Your task to perform on an android device: turn off priority inbox in the gmail app Image 0: 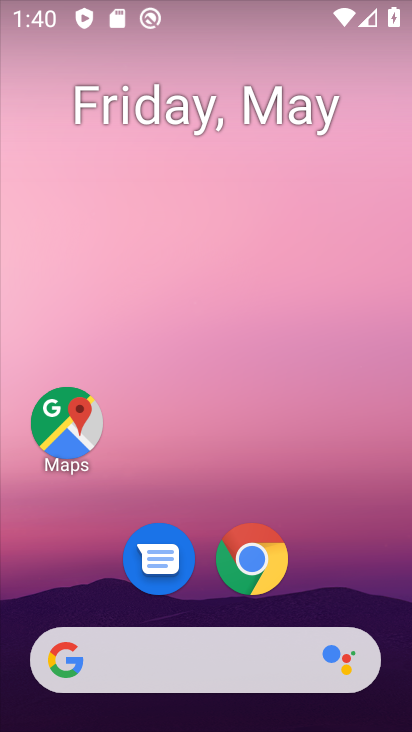
Step 0: drag from (347, 554) to (317, 237)
Your task to perform on an android device: turn off priority inbox in the gmail app Image 1: 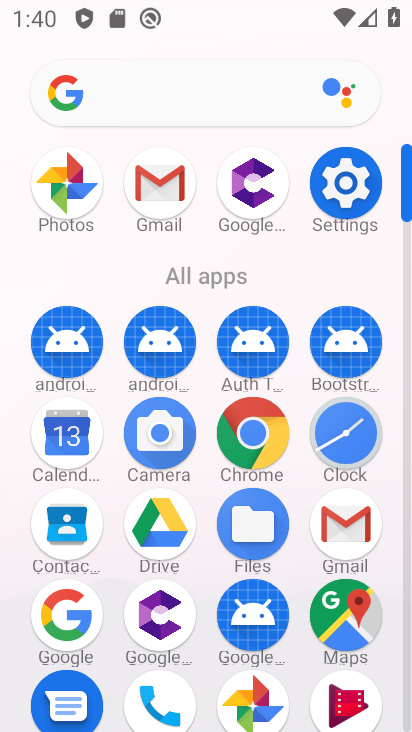
Step 1: click (159, 209)
Your task to perform on an android device: turn off priority inbox in the gmail app Image 2: 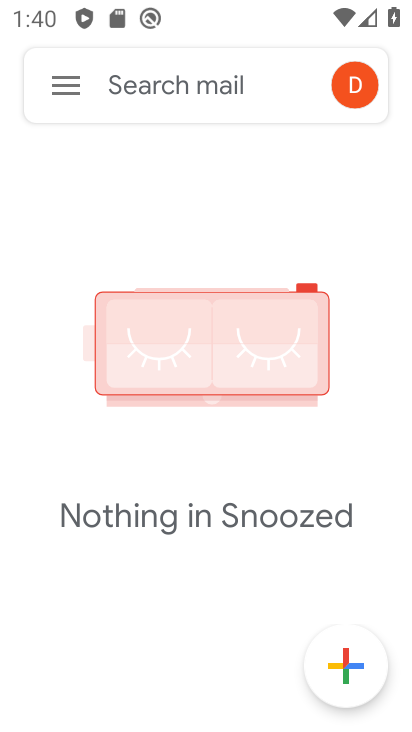
Step 2: click (78, 92)
Your task to perform on an android device: turn off priority inbox in the gmail app Image 3: 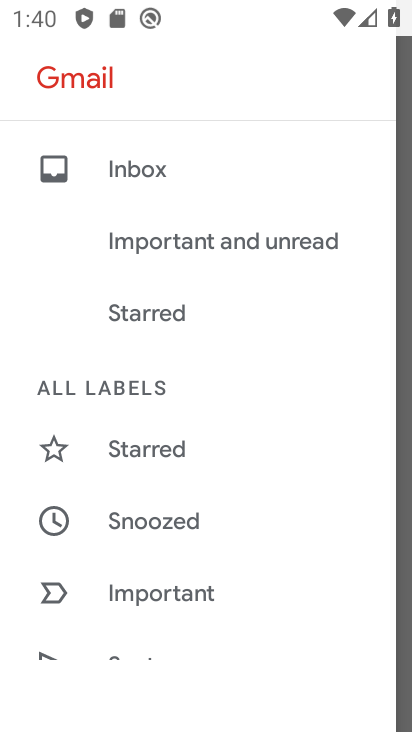
Step 3: drag from (150, 597) to (157, 249)
Your task to perform on an android device: turn off priority inbox in the gmail app Image 4: 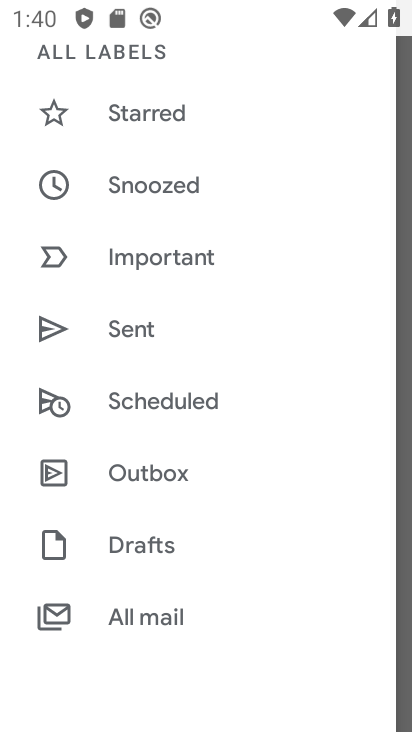
Step 4: drag from (183, 583) to (178, 167)
Your task to perform on an android device: turn off priority inbox in the gmail app Image 5: 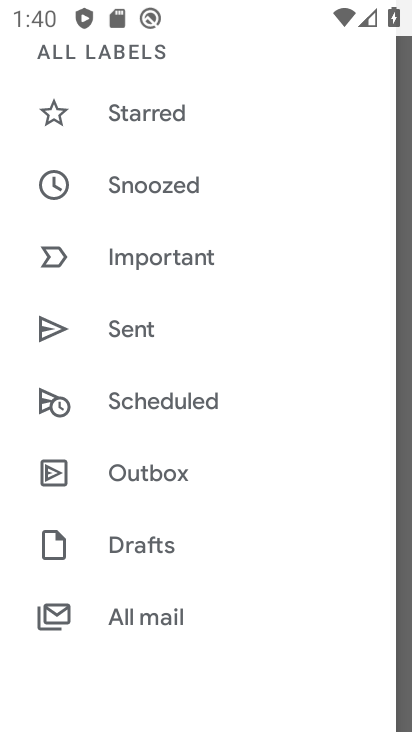
Step 5: drag from (194, 568) to (253, 245)
Your task to perform on an android device: turn off priority inbox in the gmail app Image 6: 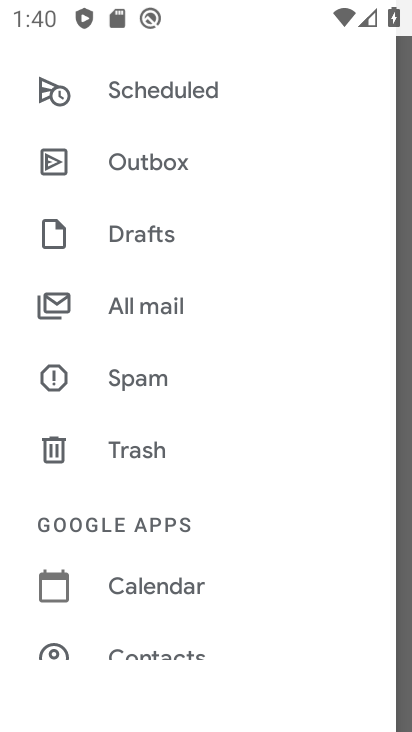
Step 6: drag from (241, 565) to (261, 201)
Your task to perform on an android device: turn off priority inbox in the gmail app Image 7: 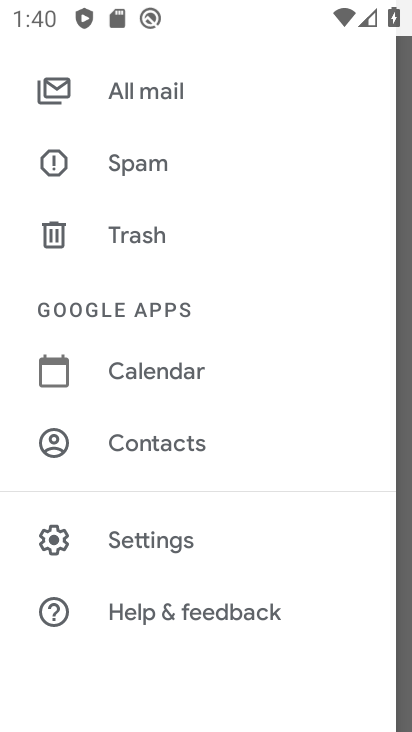
Step 7: click (184, 545)
Your task to perform on an android device: turn off priority inbox in the gmail app Image 8: 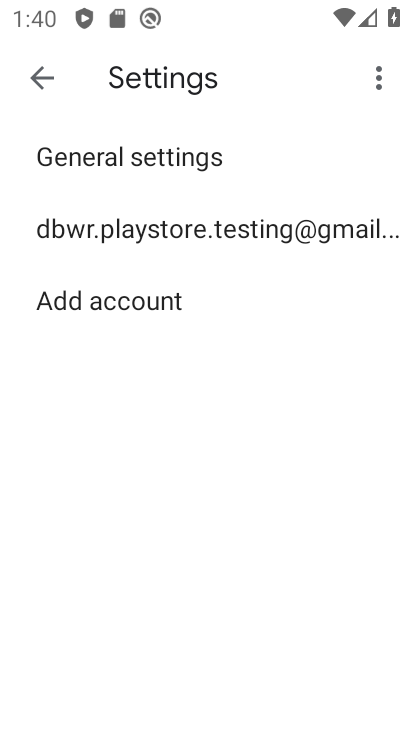
Step 8: click (145, 228)
Your task to perform on an android device: turn off priority inbox in the gmail app Image 9: 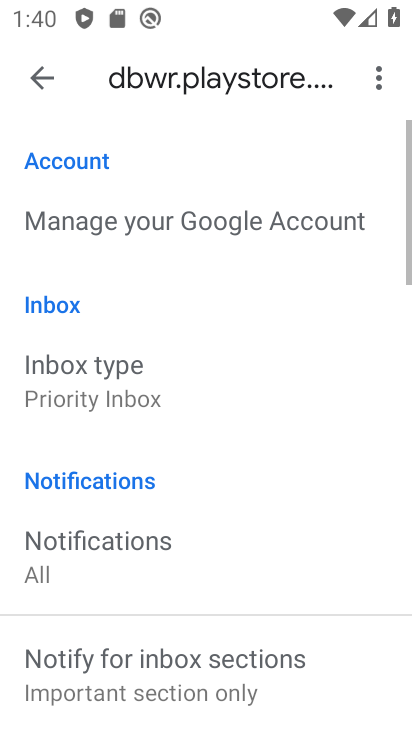
Step 9: drag from (159, 609) to (177, 224)
Your task to perform on an android device: turn off priority inbox in the gmail app Image 10: 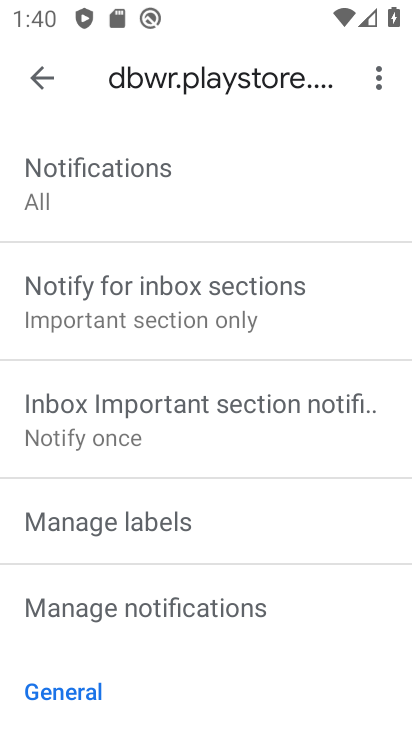
Step 10: drag from (165, 680) to (203, 205)
Your task to perform on an android device: turn off priority inbox in the gmail app Image 11: 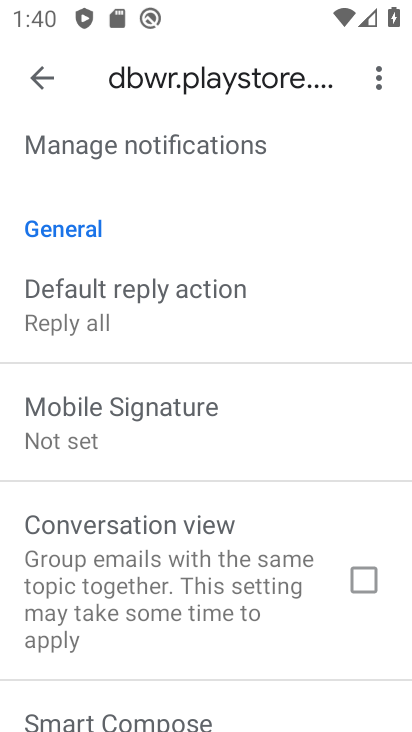
Step 11: drag from (184, 652) to (254, 222)
Your task to perform on an android device: turn off priority inbox in the gmail app Image 12: 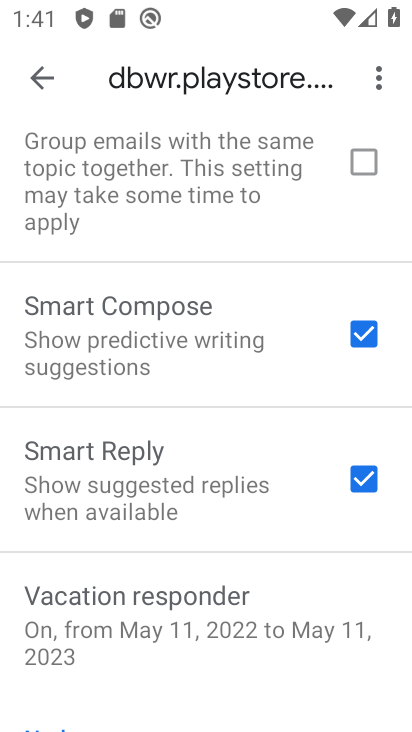
Step 12: drag from (230, 653) to (259, 308)
Your task to perform on an android device: turn off priority inbox in the gmail app Image 13: 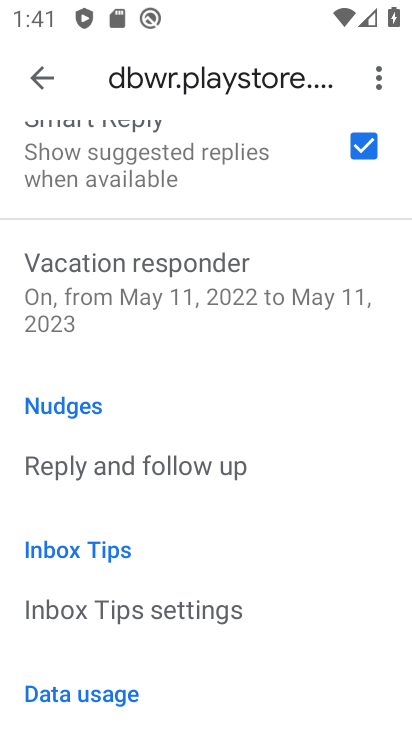
Step 13: drag from (261, 599) to (285, 333)
Your task to perform on an android device: turn off priority inbox in the gmail app Image 14: 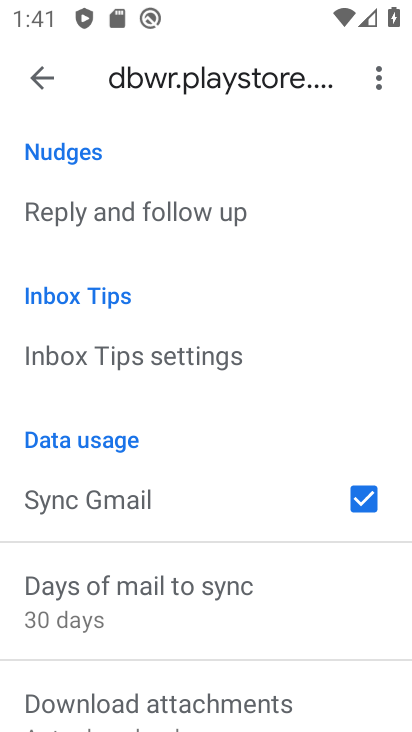
Step 14: drag from (205, 291) to (209, 632)
Your task to perform on an android device: turn off priority inbox in the gmail app Image 15: 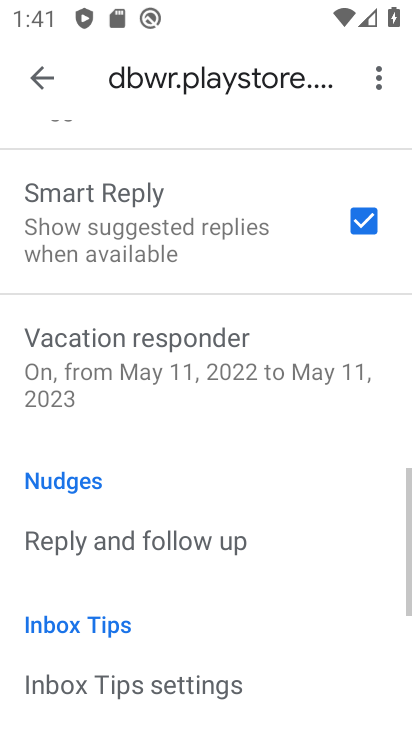
Step 15: drag from (188, 209) to (204, 611)
Your task to perform on an android device: turn off priority inbox in the gmail app Image 16: 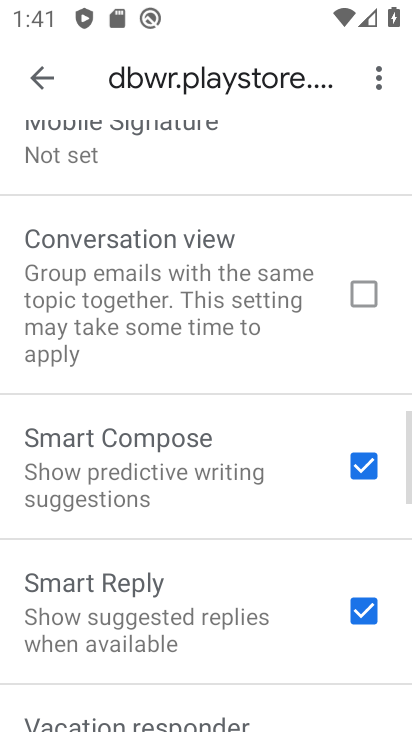
Step 16: drag from (188, 229) to (183, 600)
Your task to perform on an android device: turn off priority inbox in the gmail app Image 17: 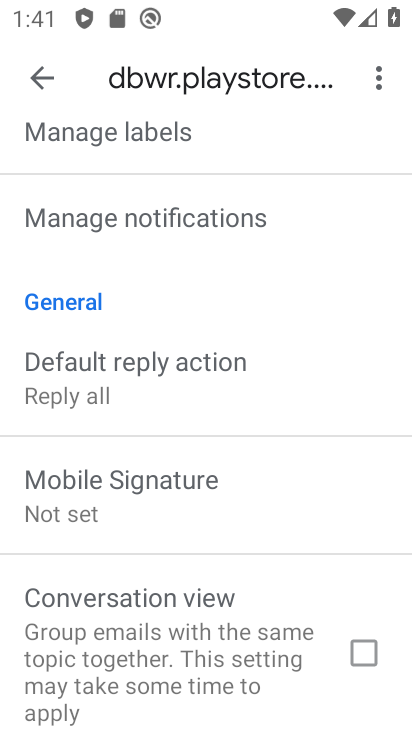
Step 17: drag from (161, 203) to (136, 621)
Your task to perform on an android device: turn off priority inbox in the gmail app Image 18: 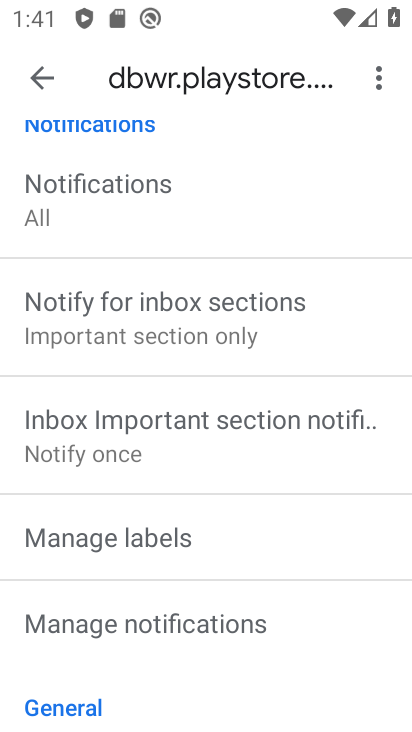
Step 18: drag from (125, 194) to (107, 668)
Your task to perform on an android device: turn off priority inbox in the gmail app Image 19: 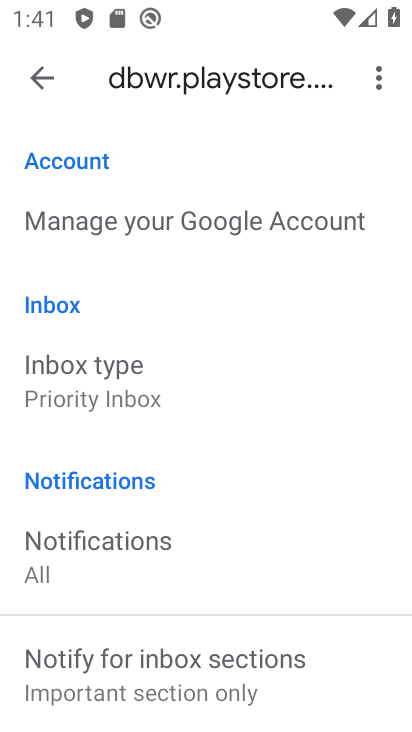
Step 19: click (106, 402)
Your task to perform on an android device: turn off priority inbox in the gmail app Image 20: 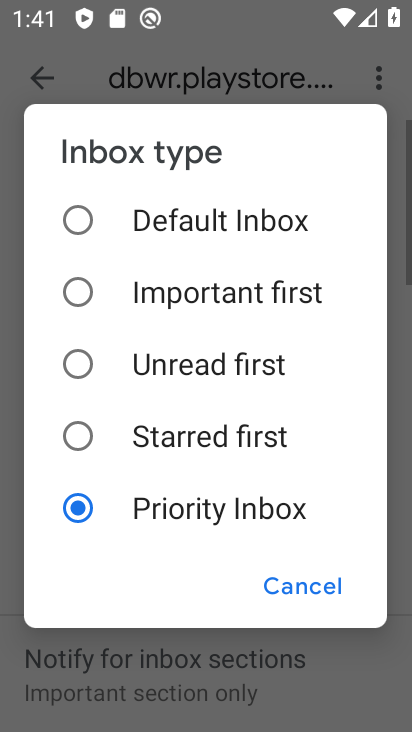
Step 20: click (149, 230)
Your task to perform on an android device: turn off priority inbox in the gmail app Image 21: 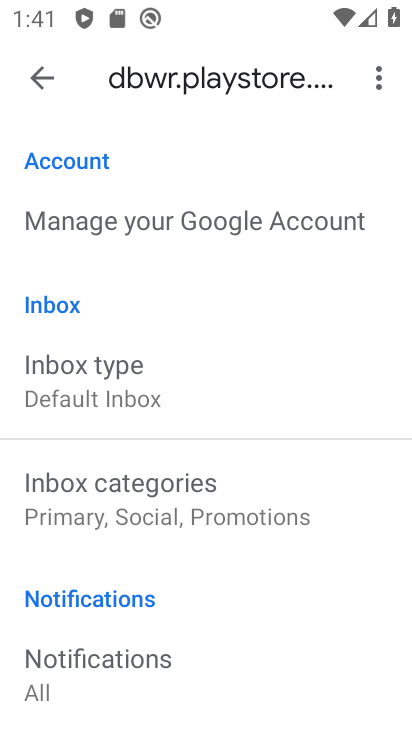
Step 21: task complete